Your task to perform on an android device: Turn off the flashlight Image 0: 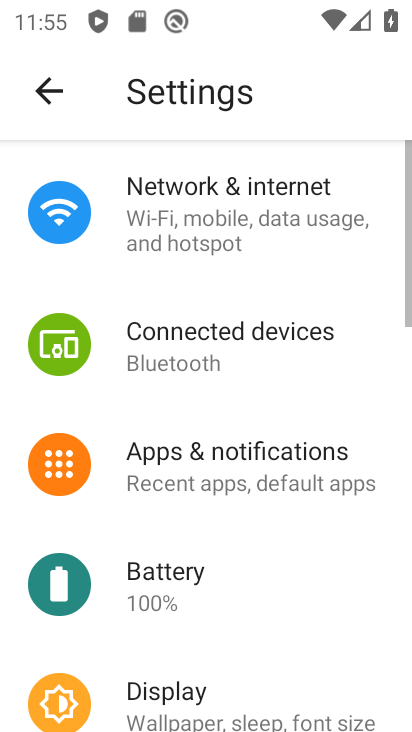
Step 0: press home button
Your task to perform on an android device: Turn off the flashlight Image 1: 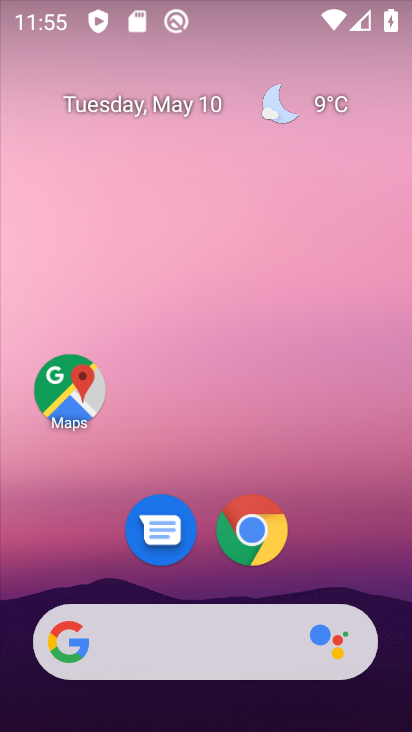
Step 1: task complete